Your task to perform on an android device: Open calendar and show me the third week of next month Image 0: 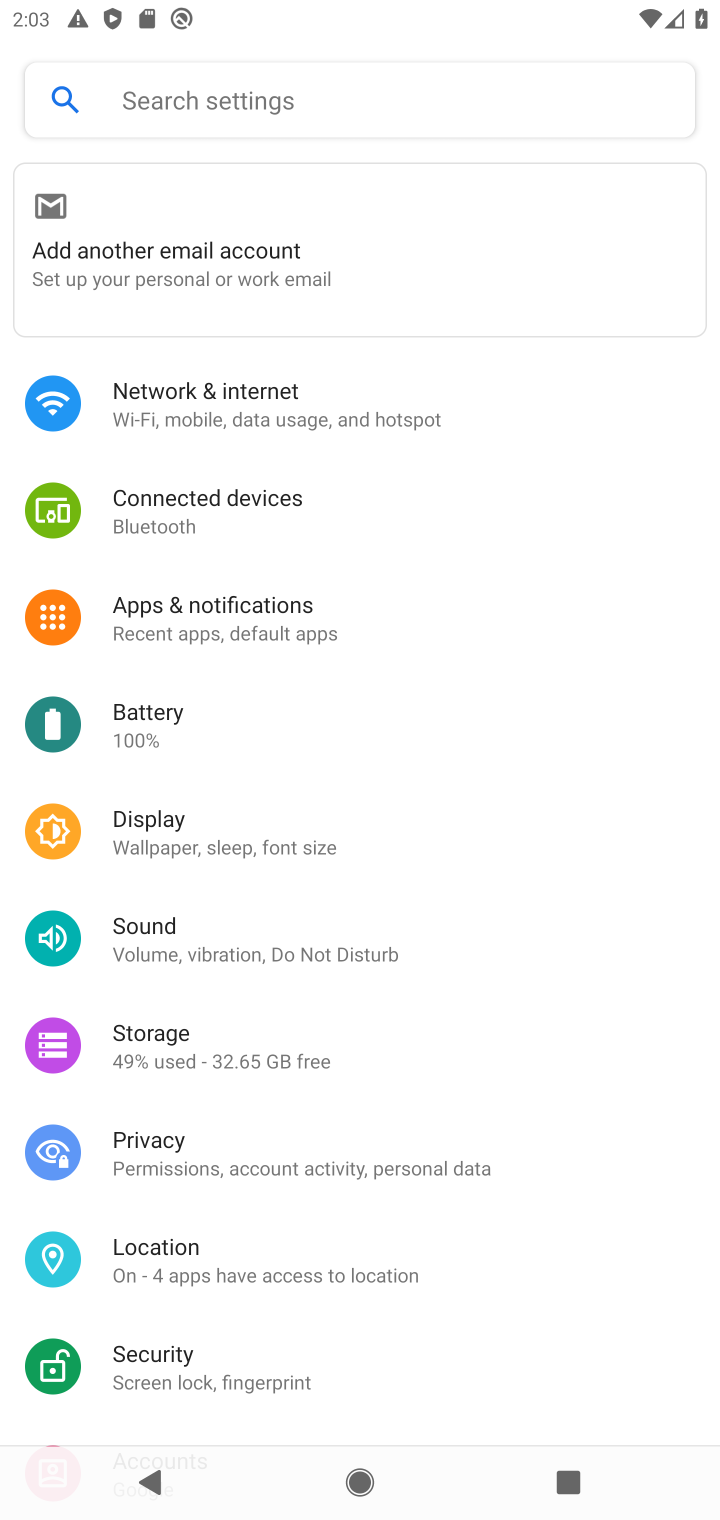
Step 0: press home button
Your task to perform on an android device: Open calendar and show me the third week of next month Image 1: 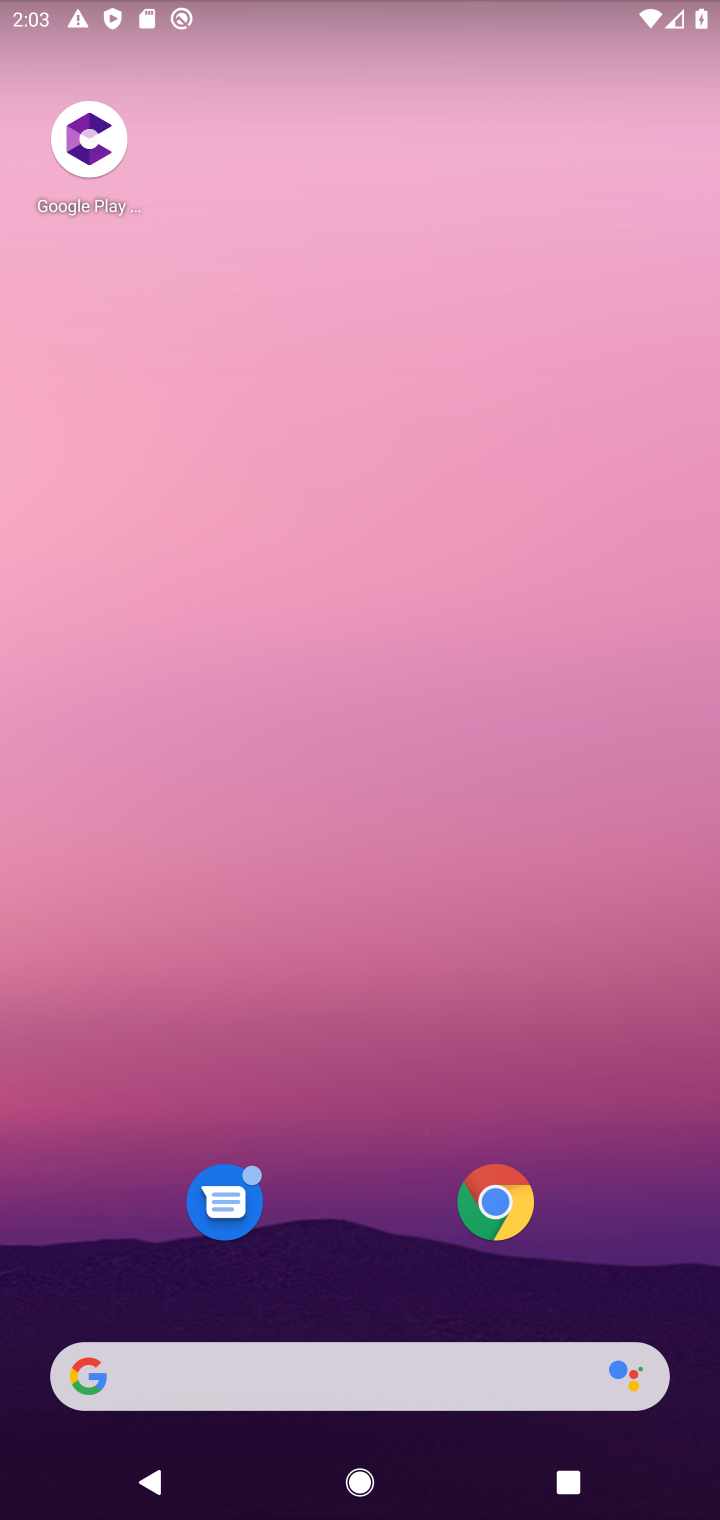
Step 1: drag from (462, 1263) to (462, 105)
Your task to perform on an android device: Open calendar and show me the third week of next month Image 2: 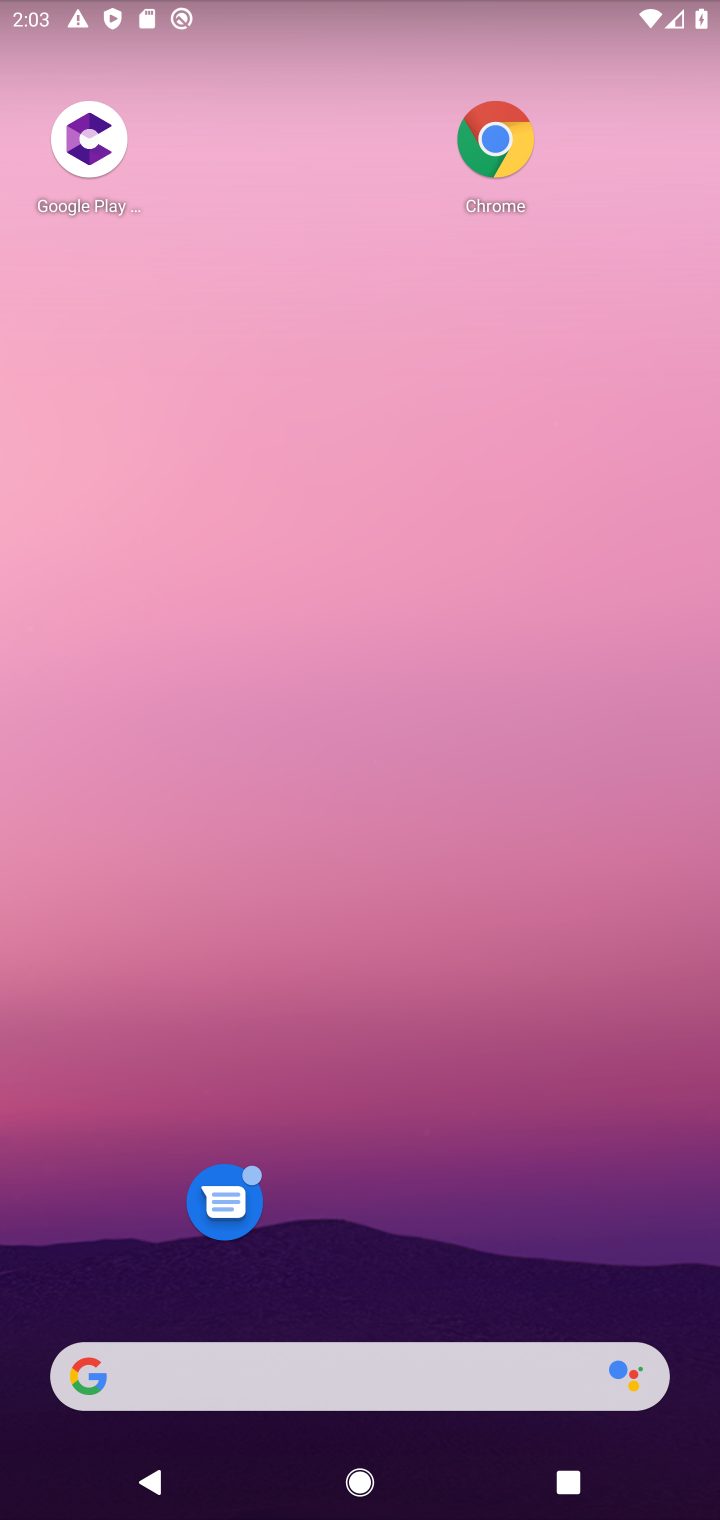
Step 2: drag from (430, 1364) to (447, 146)
Your task to perform on an android device: Open calendar and show me the third week of next month Image 3: 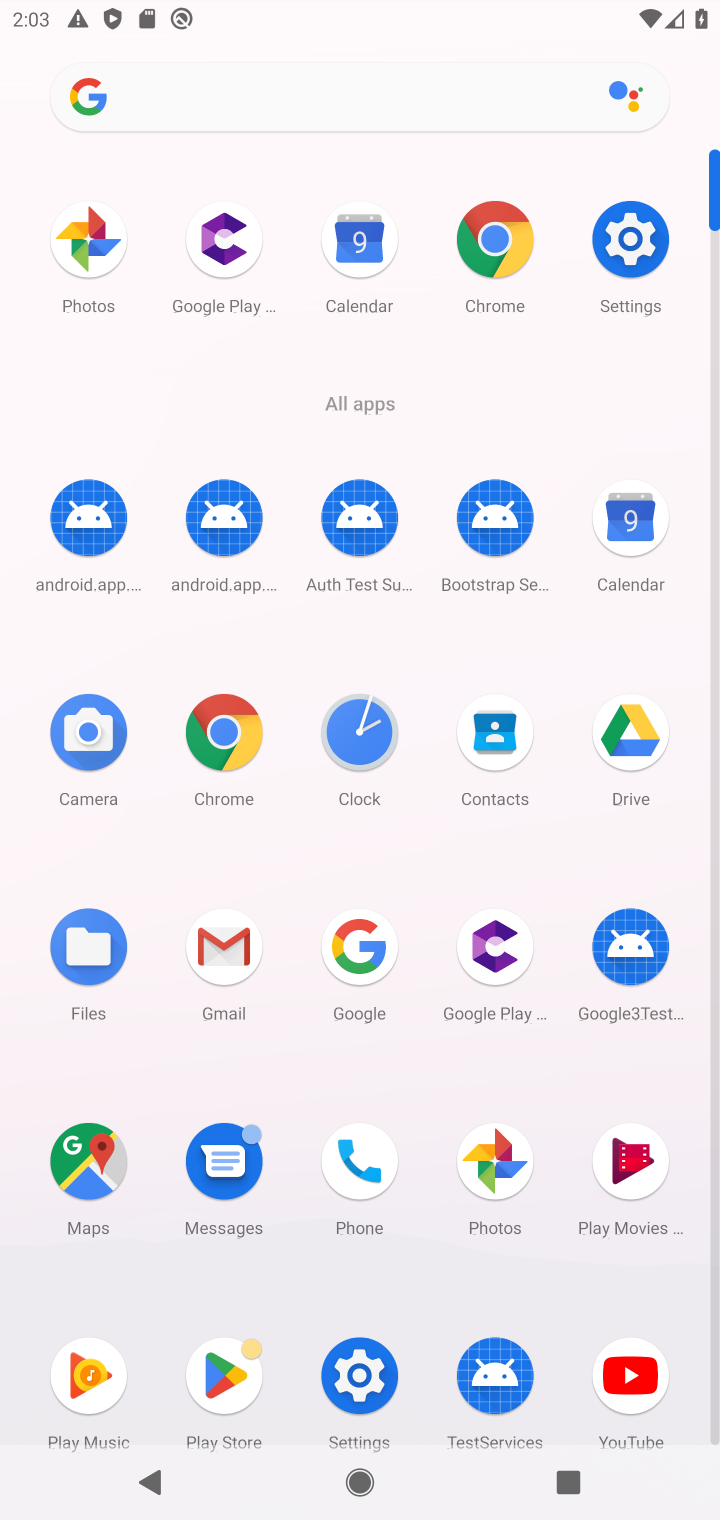
Step 3: click (621, 528)
Your task to perform on an android device: Open calendar and show me the third week of next month Image 4: 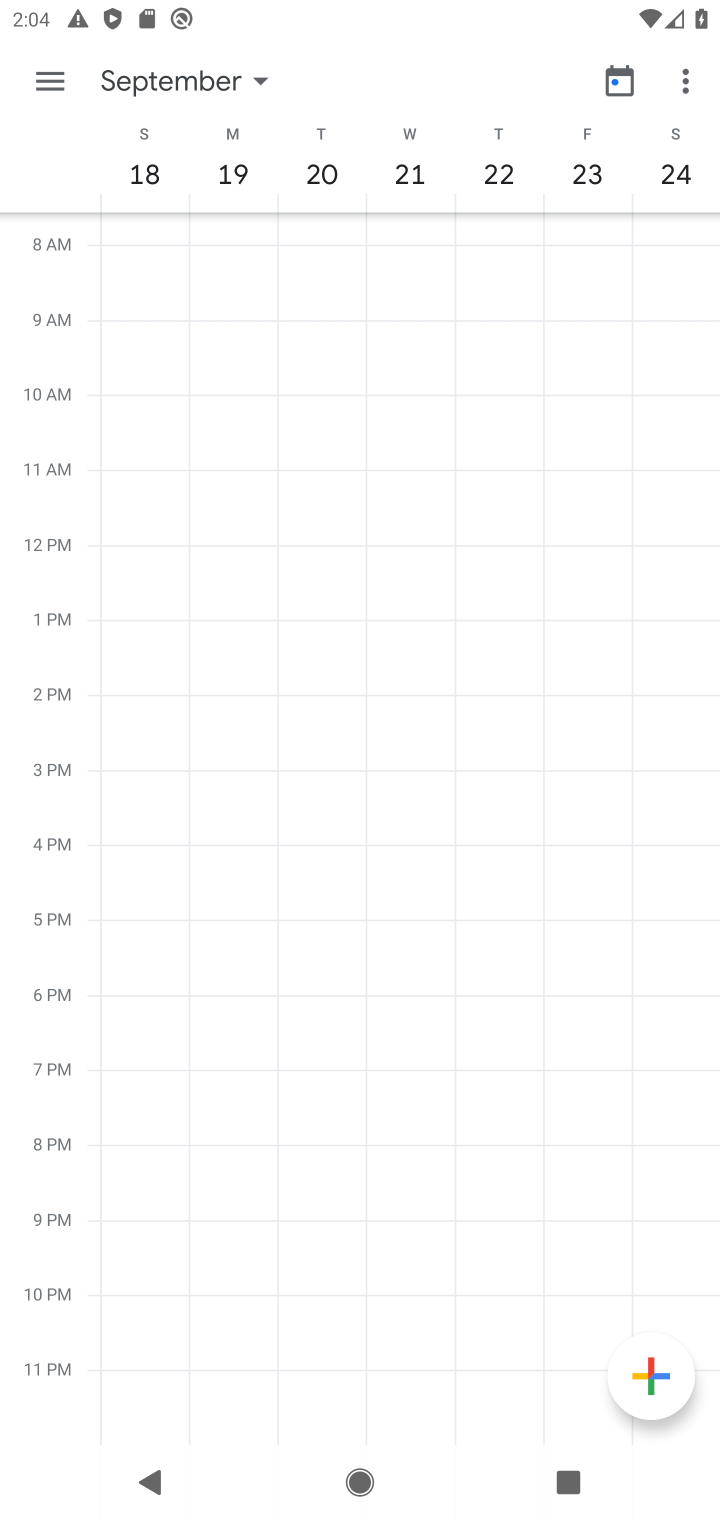
Step 4: click (249, 84)
Your task to perform on an android device: Open calendar and show me the third week of next month Image 5: 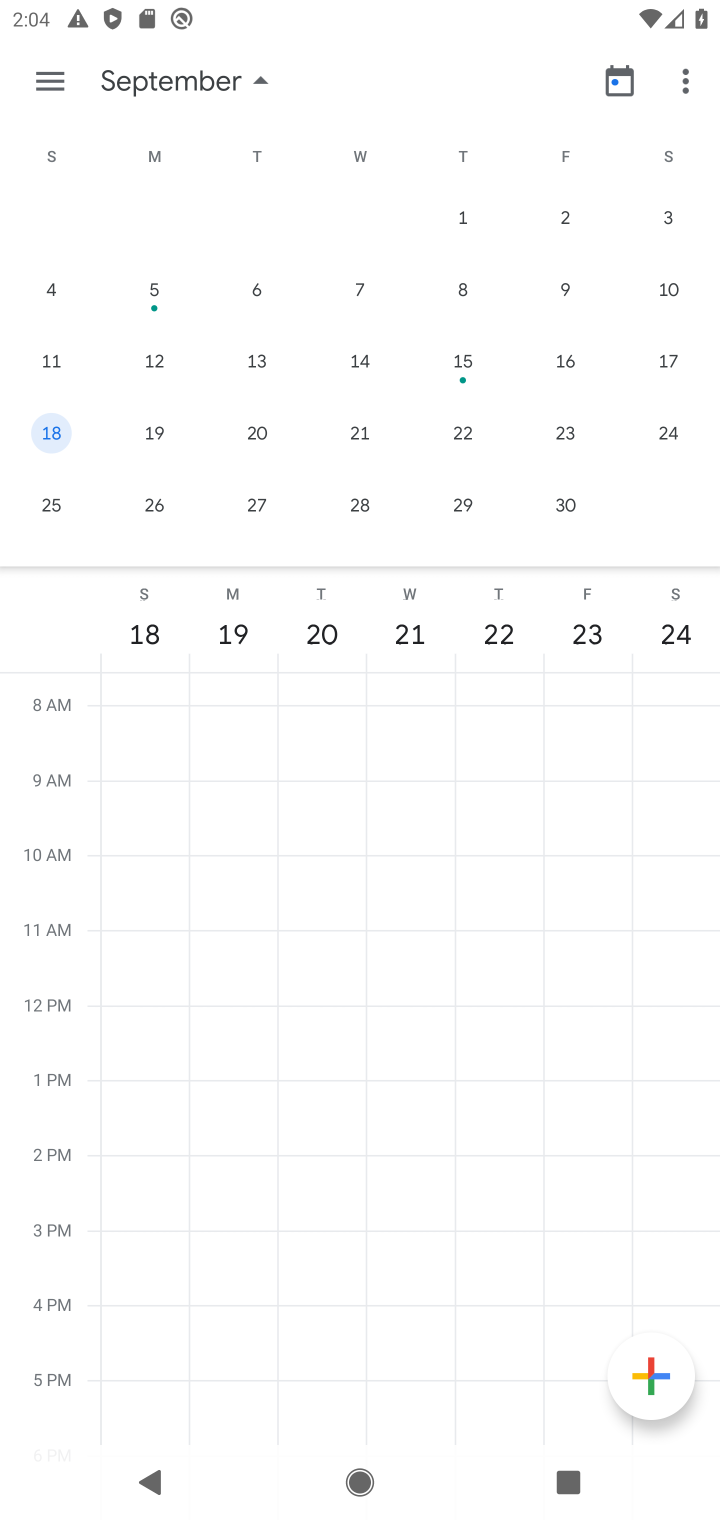
Step 5: click (359, 353)
Your task to perform on an android device: Open calendar and show me the third week of next month Image 6: 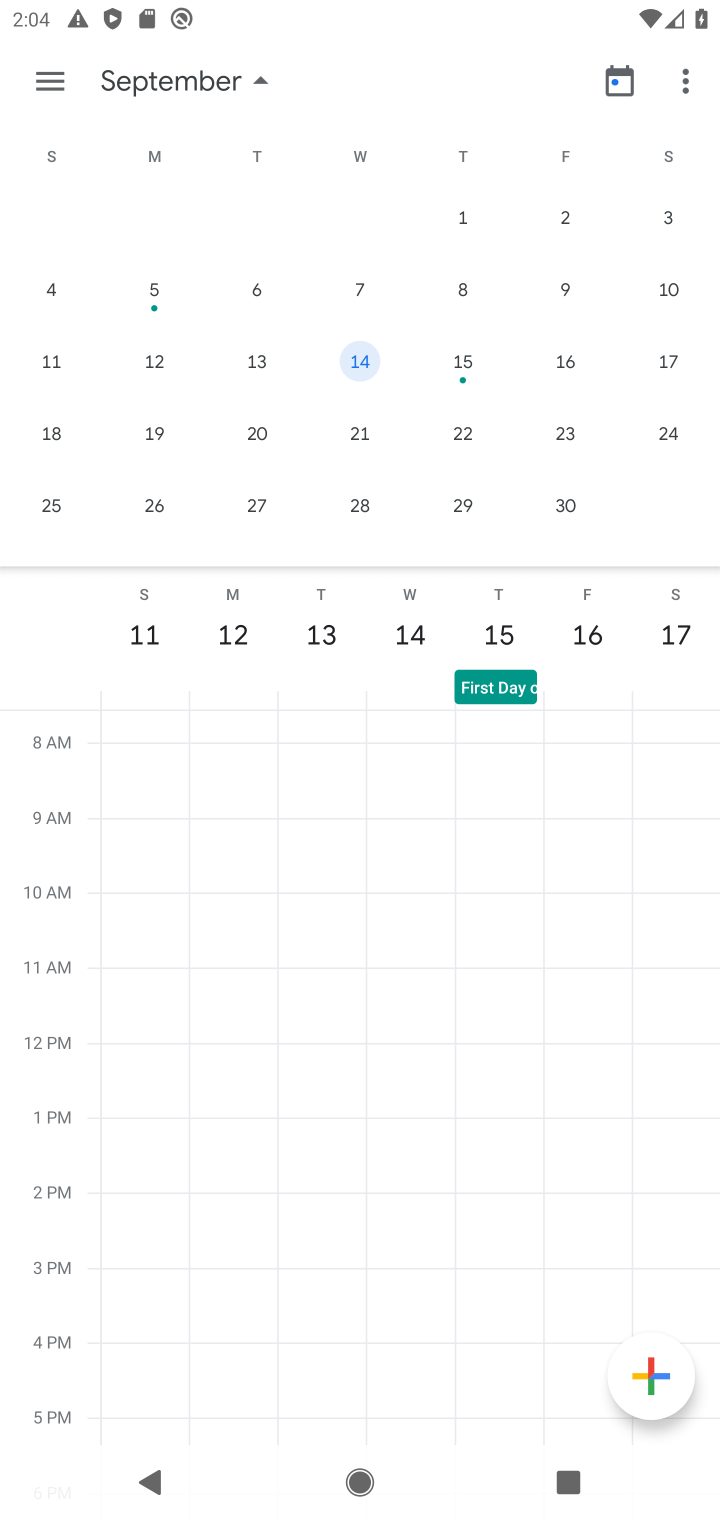
Step 6: task complete